Your task to perform on an android device: check out phone information Image 0: 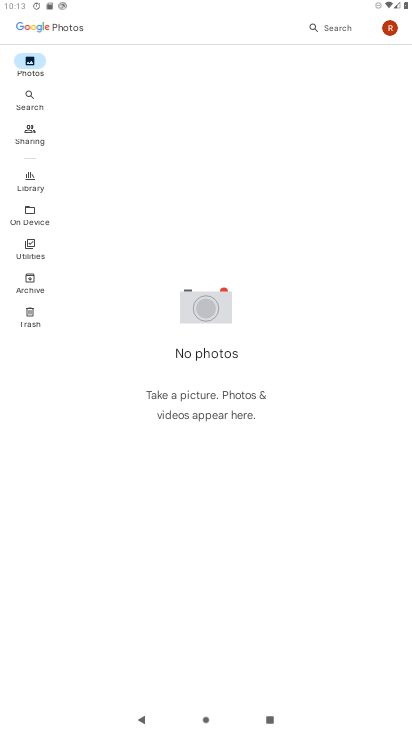
Step 0: press home button
Your task to perform on an android device: check out phone information Image 1: 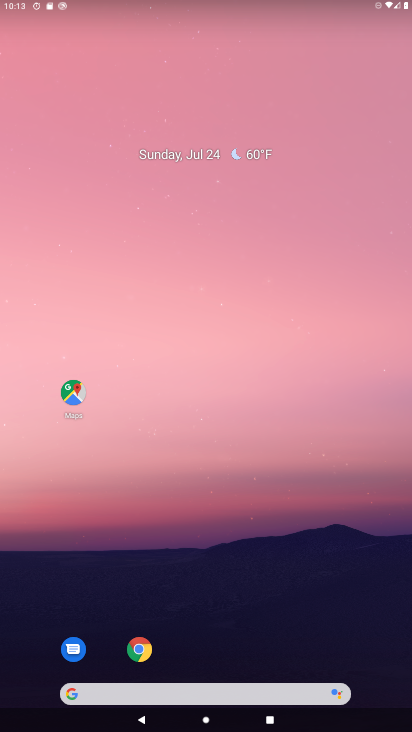
Step 1: drag from (285, 269) to (307, 55)
Your task to perform on an android device: check out phone information Image 2: 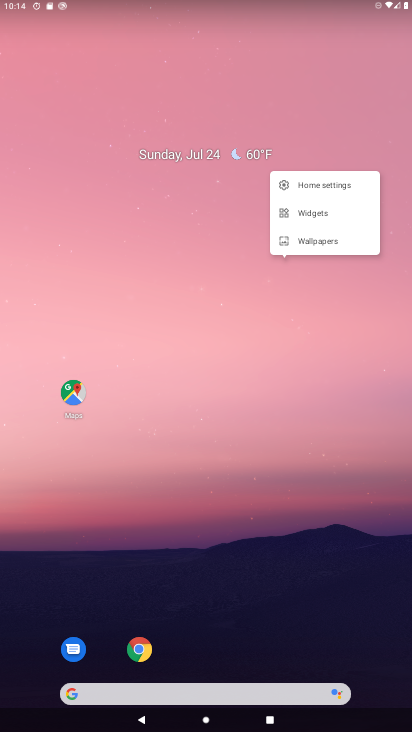
Step 2: click (317, 575)
Your task to perform on an android device: check out phone information Image 3: 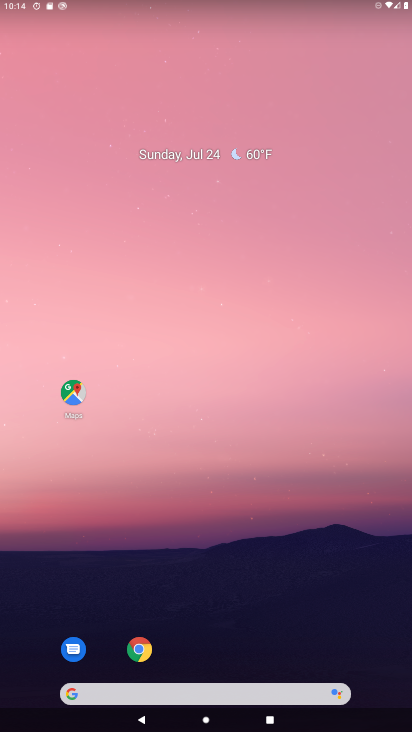
Step 3: drag from (315, 565) to (199, 38)
Your task to perform on an android device: check out phone information Image 4: 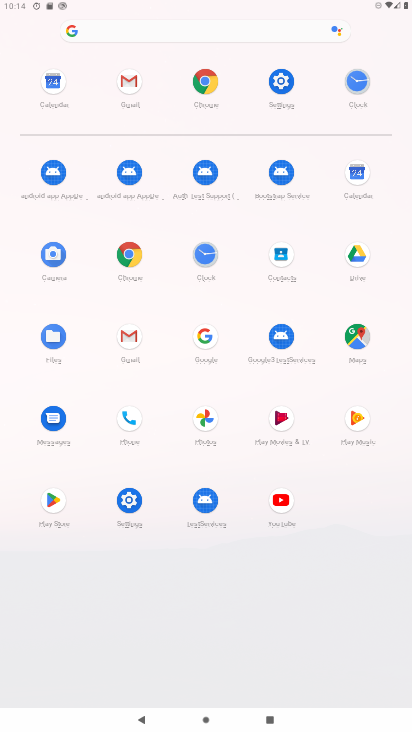
Step 4: click (125, 426)
Your task to perform on an android device: check out phone information Image 5: 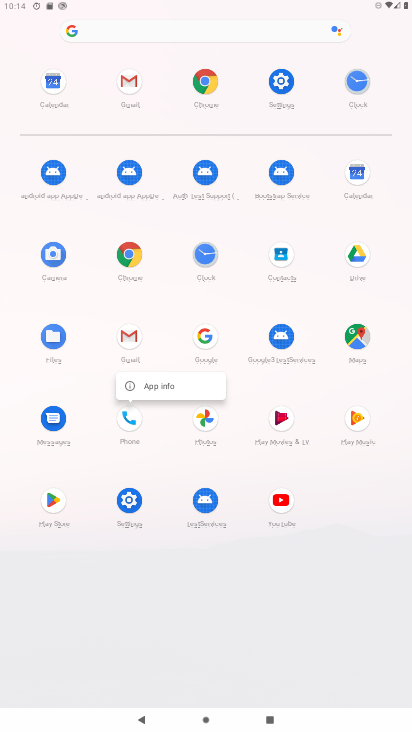
Step 5: click (152, 388)
Your task to perform on an android device: check out phone information Image 6: 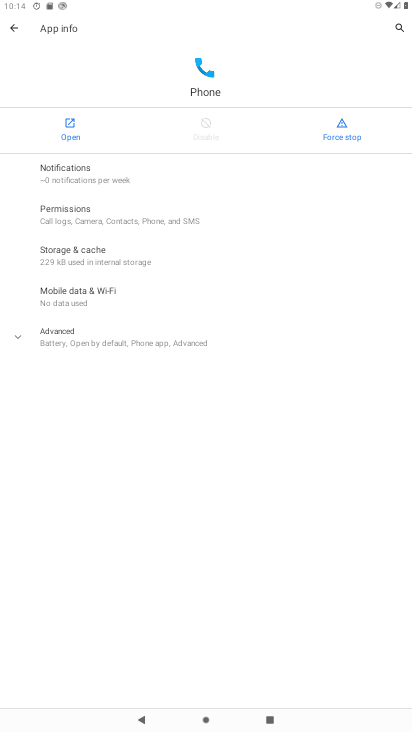
Step 6: click (134, 333)
Your task to perform on an android device: check out phone information Image 7: 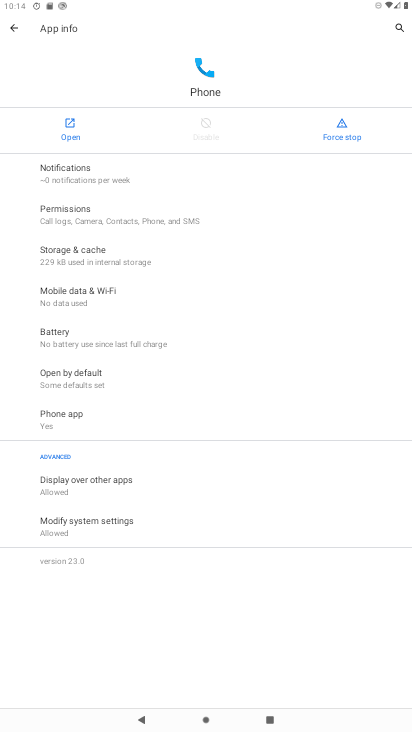
Step 7: task complete